Your task to perform on an android device: uninstall "Clock" Image 0: 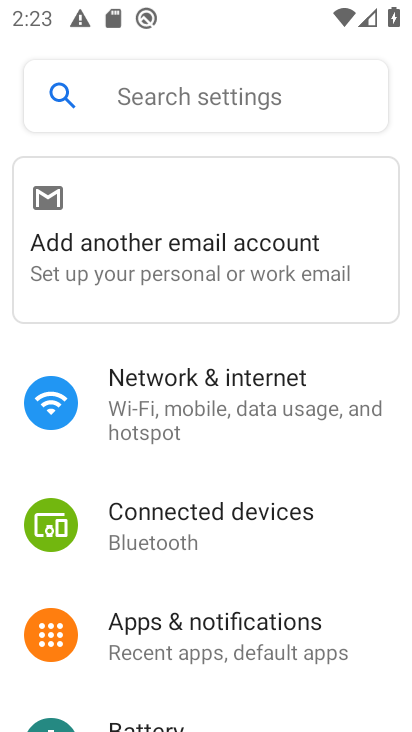
Step 0: press home button
Your task to perform on an android device: uninstall "Clock" Image 1: 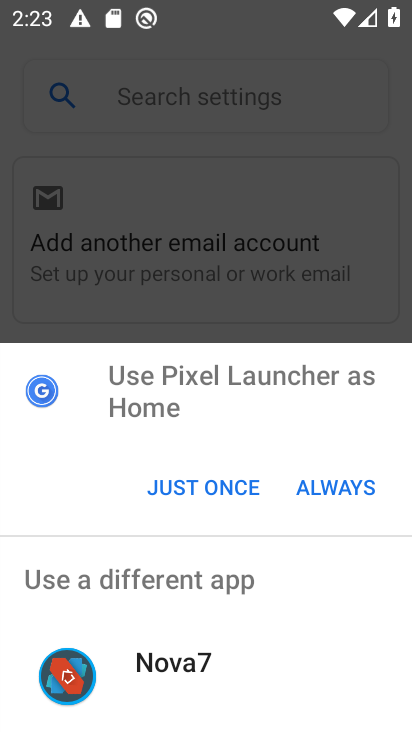
Step 1: click (206, 487)
Your task to perform on an android device: uninstall "Clock" Image 2: 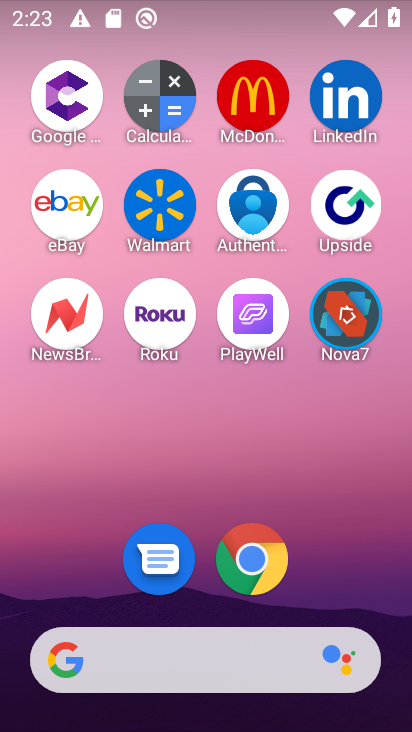
Step 2: drag from (102, 580) to (76, 201)
Your task to perform on an android device: uninstall "Clock" Image 3: 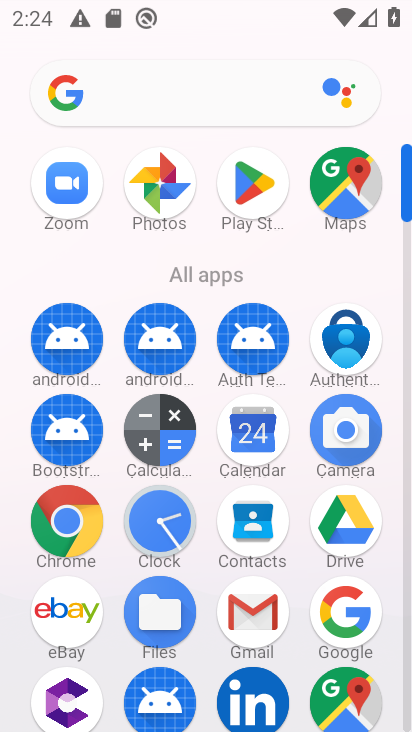
Step 3: click (153, 536)
Your task to perform on an android device: uninstall "Clock" Image 4: 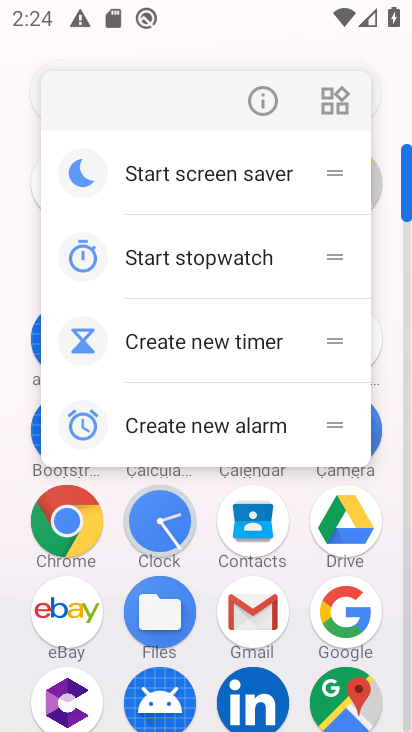
Step 4: task complete